Your task to perform on an android device: toggle javascript in the chrome app Image 0: 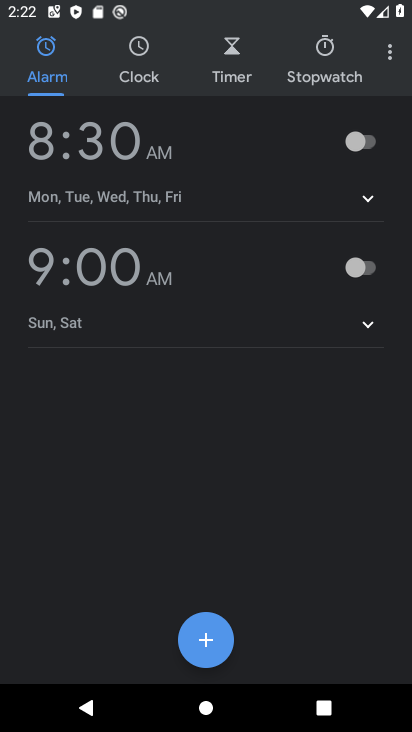
Step 0: press home button
Your task to perform on an android device: toggle javascript in the chrome app Image 1: 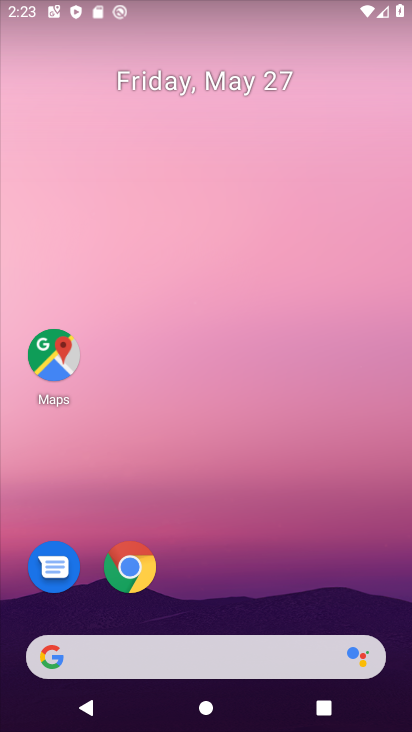
Step 1: click (135, 558)
Your task to perform on an android device: toggle javascript in the chrome app Image 2: 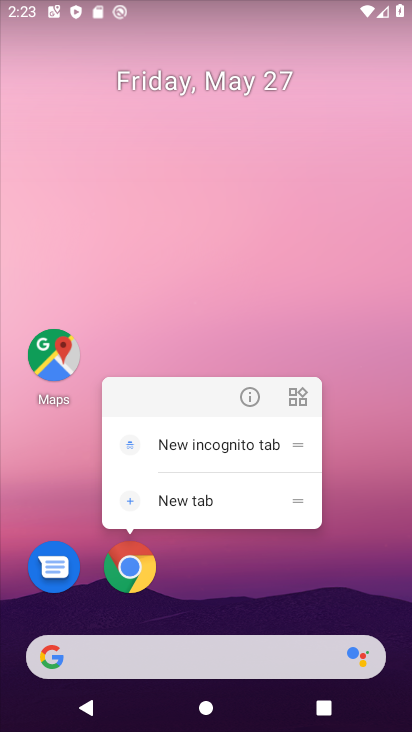
Step 2: click (239, 397)
Your task to perform on an android device: toggle javascript in the chrome app Image 3: 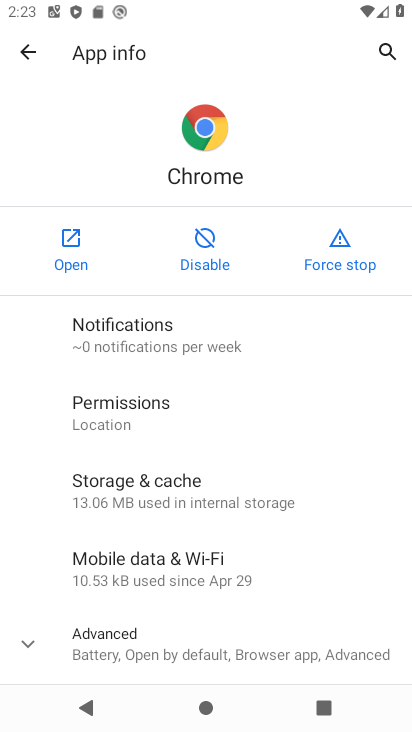
Step 3: press home button
Your task to perform on an android device: toggle javascript in the chrome app Image 4: 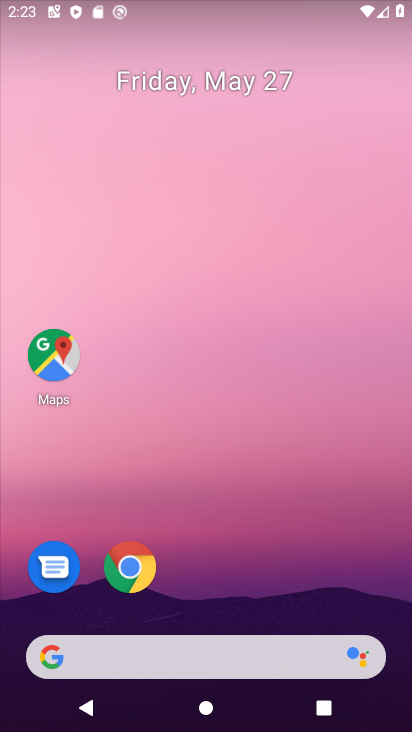
Step 4: click (149, 577)
Your task to perform on an android device: toggle javascript in the chrome app Image 5: 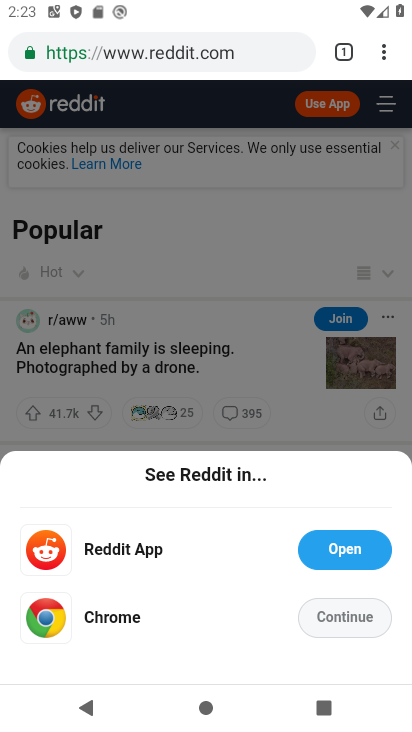
Step 5: task complete